Your task to perform on an android device: Search for sushi restaurants on Maps Image 0: 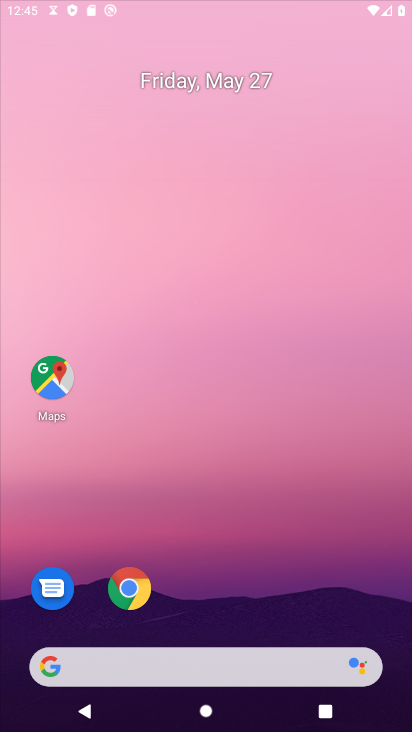
Step 0: press home button
Your task to perform on an android device: Search for sushi restaurants on Maps Image 1: 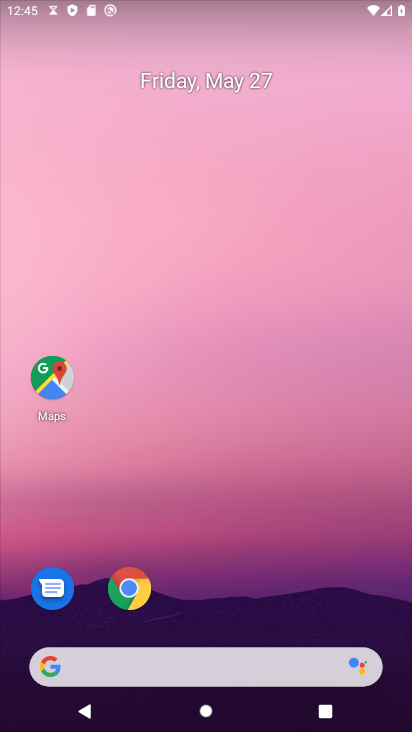
Step 1: drag from (220, 621) to (271, 161)
Your task to perform on an android device: Search for sushi restaurants on Maps Image 2: 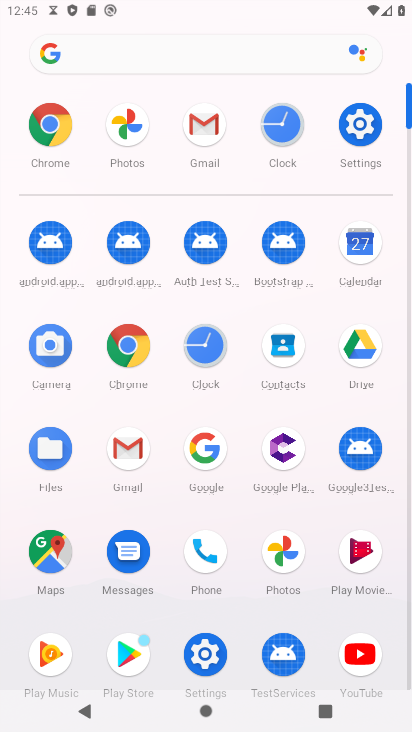
Step 2: click (55, 543)
Your task to perform on an android device: Search for sushi restaurants on Maps Image 3: 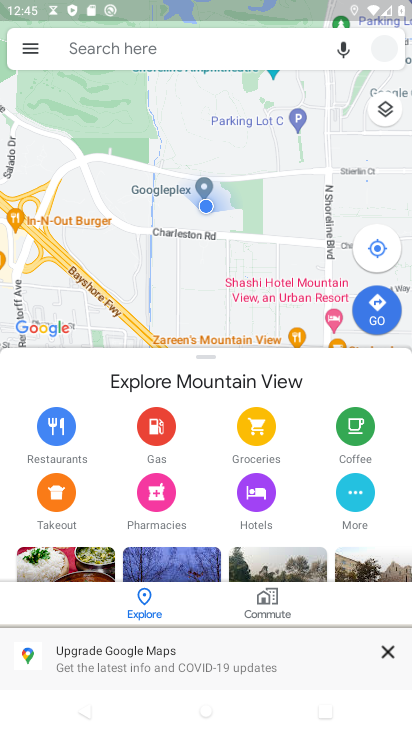
Step 3: click (50, 543)
Your task to perform on an android device: Search for sushi restaurants on Maps Image 4: 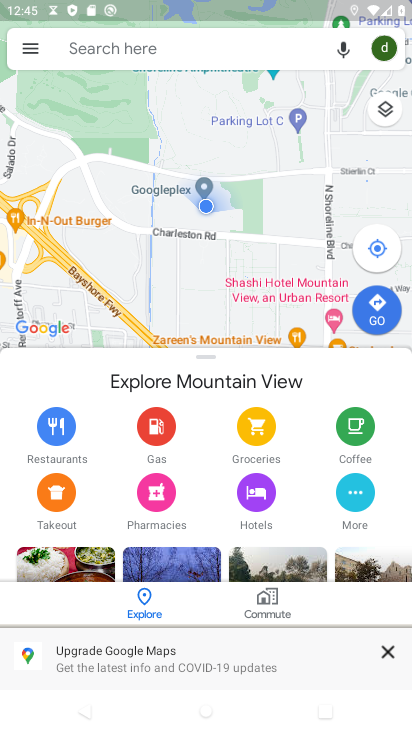
Step 4: click (122, 46)
Your task to perform on an android device: Search for sushi restaurants on Maps Image 5: 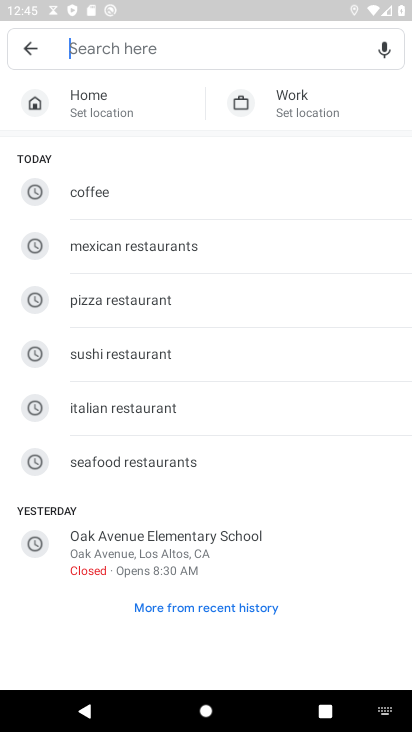
Step 5: click (111, 358)
Your task to perform on an android device: Search for sushi restaurants on Maps Image 6: 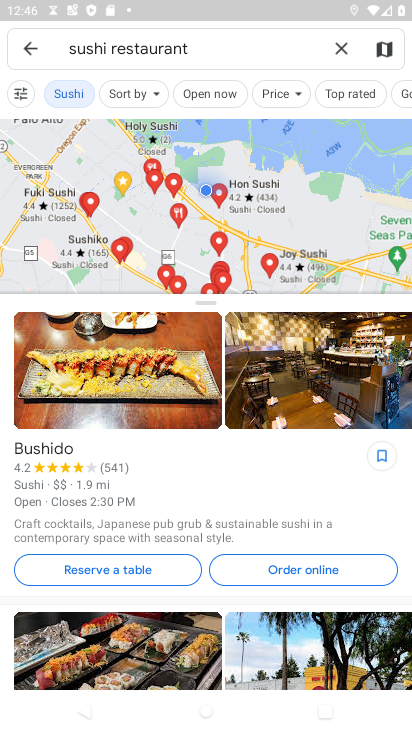
Step 6: drag from (204, 593) to (218, 241)
Your task to perform on an android device: Search for sushi restaurants on Maps Image 7: 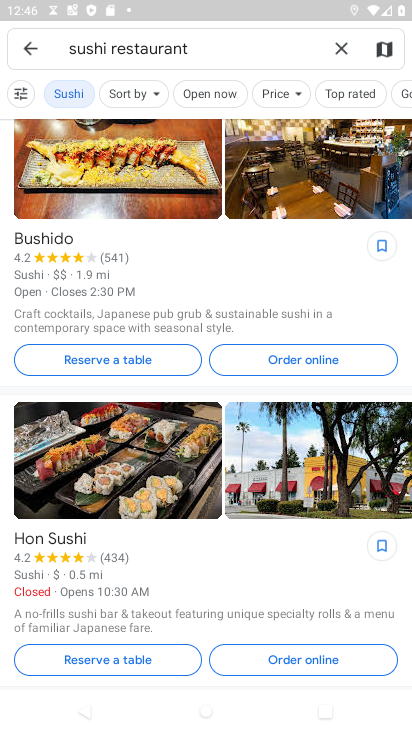
Step 7: click (223, 170)
Your task to perform on an android device: Search for sushi restaurants on Maps Image 8: 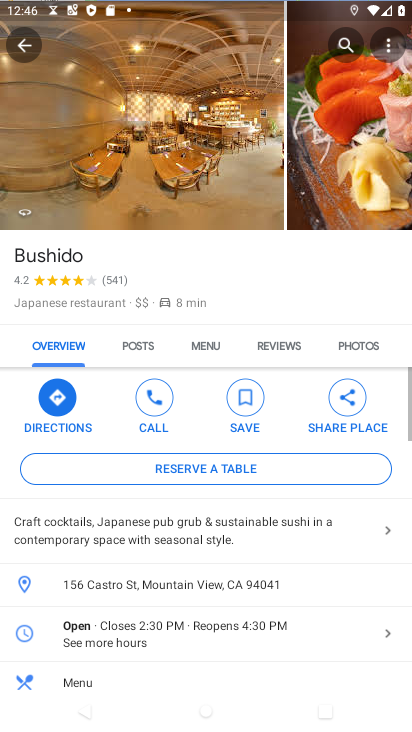
Step 8: task complete